Your task to perform on an android device: turn off improve location accuracy Image 0: 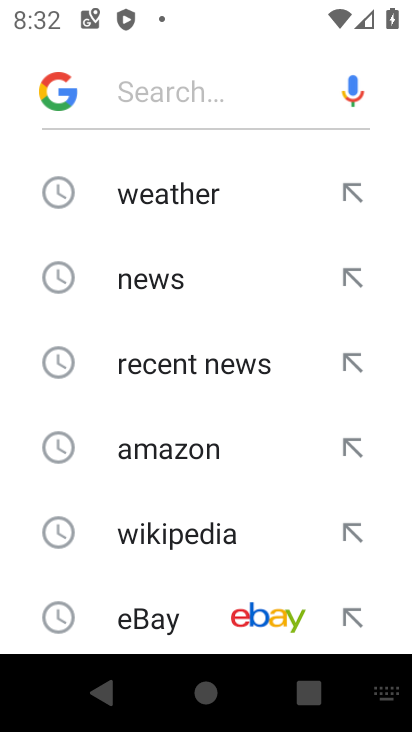
Step 0: press home button
Your task to perform on an android device: turn off improve location accuracy Image 1: 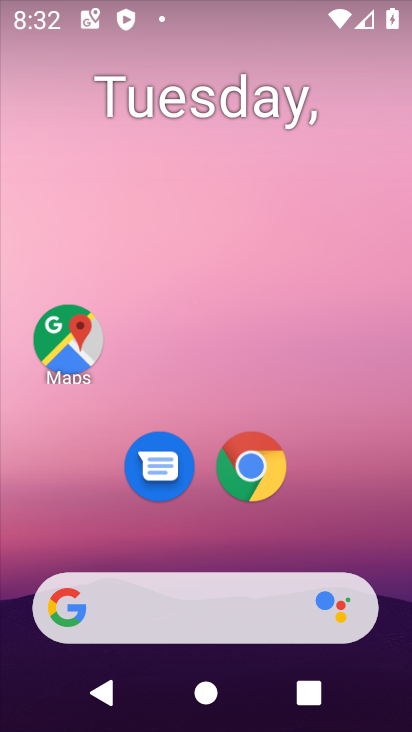
Step 1: drag from (366, 518) to (356, 120)
Your task to perform on an android device: turn off improve location accuracy Image 2: 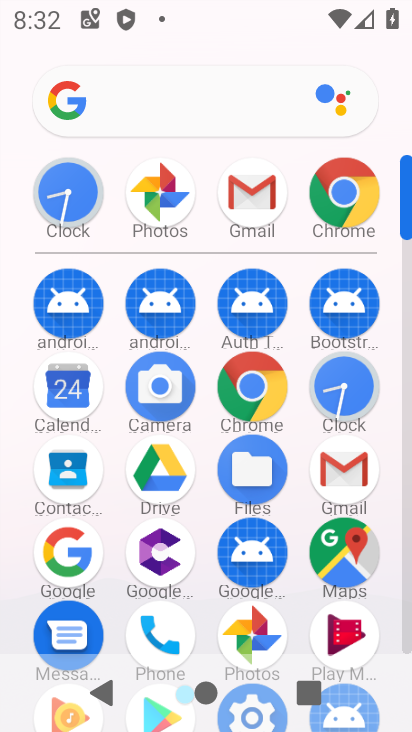
Step 2: click (411, 648)
Your task to perform on an android device: turn off improve location accuracy Image 3: 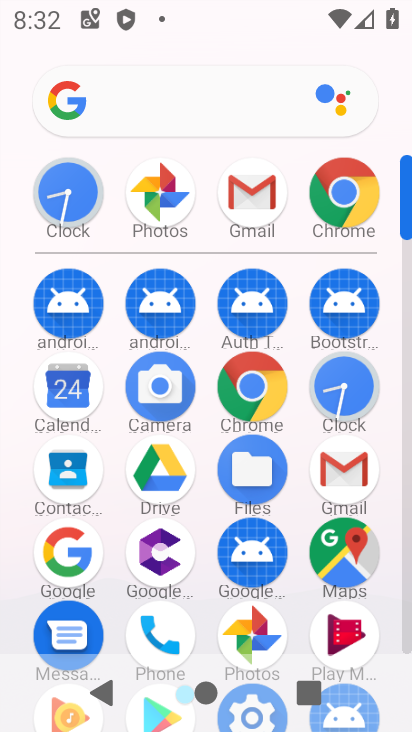
Step 3: click (411, 648)
Your task to perform on an android device: turn off improve location accuracy Image 4: 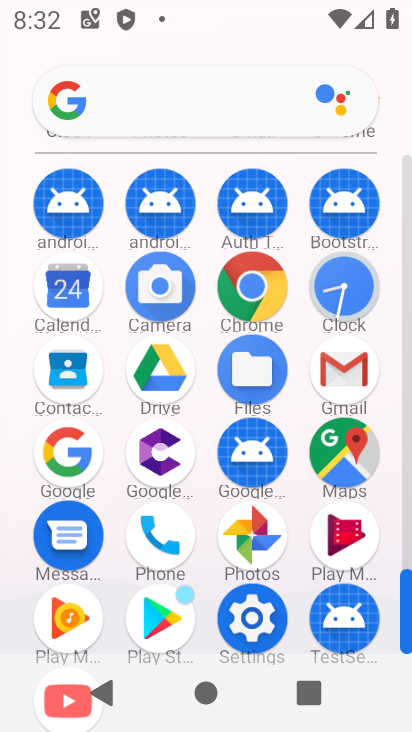
Step 4: click (238, 622)
Your task to perform on an android device: turn off improve location accuracy Image 5: 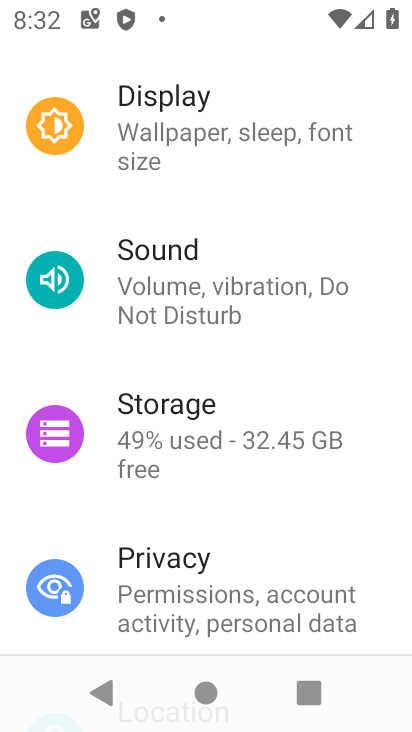
Step 5: drag from (313, 574) to (335, 155)
Your task to perform on an android device: turn off improve location accuracy Image 6: 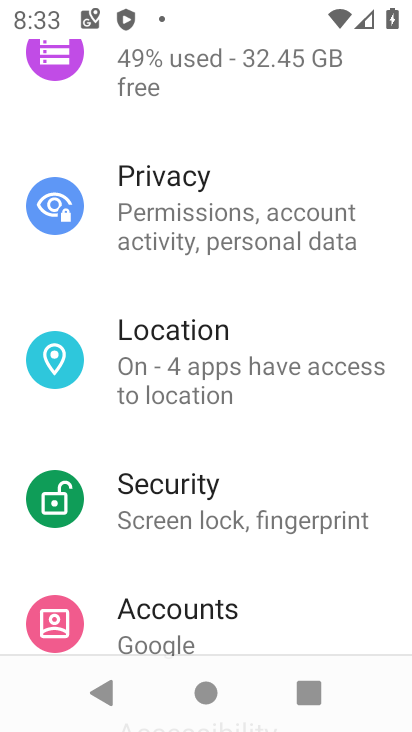
Step 6: click (247, 350)
Your task to perform on an android device: turn off improve location accuracy Image 7: 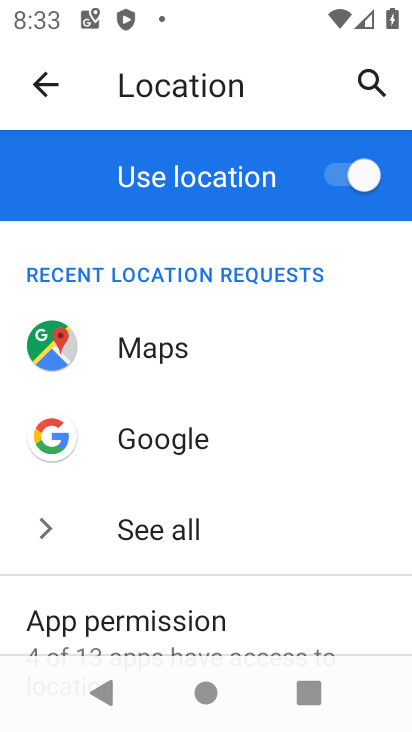
Step 7: drag from (276, 546) to (266, 292)
Your task to perform on an android device: turn off improve location accuracy Image 8: 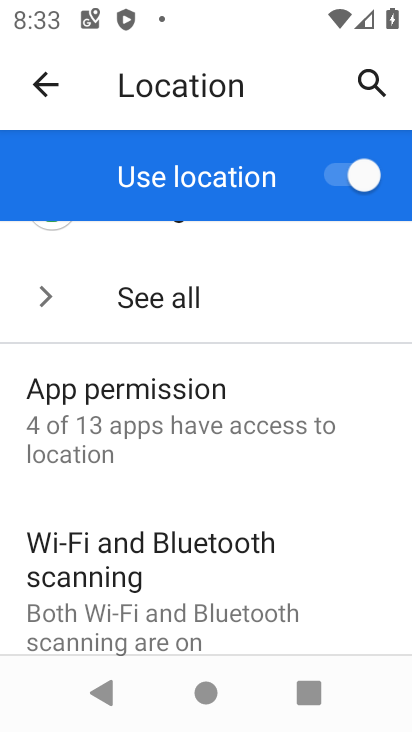
Step 8: drag from (203, 577) to (199, 305)
Your task to perform on an android device: turn off improve location accuracy Image 9: 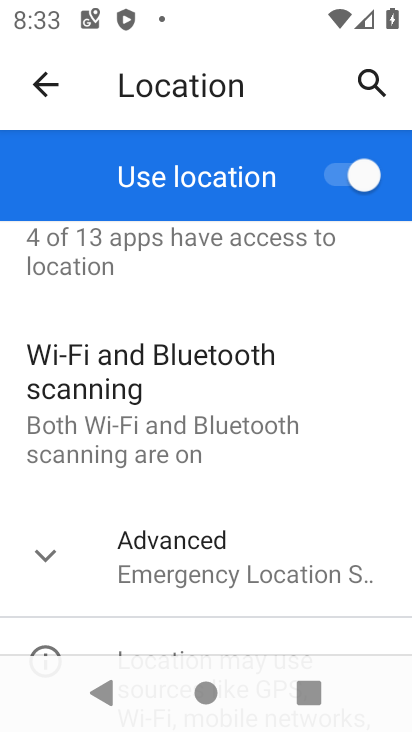
Step 9: click (182, 554)
Your task to perform on an android device: turn off improve location accuracy Image 10: 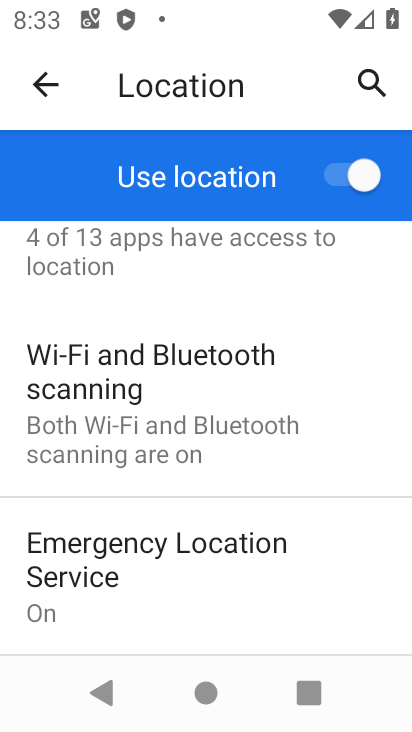
Step 10: drag from (239, 570) to (260, 252)
Your task to perform on an android device: turn off improve location accuracy Image 11: 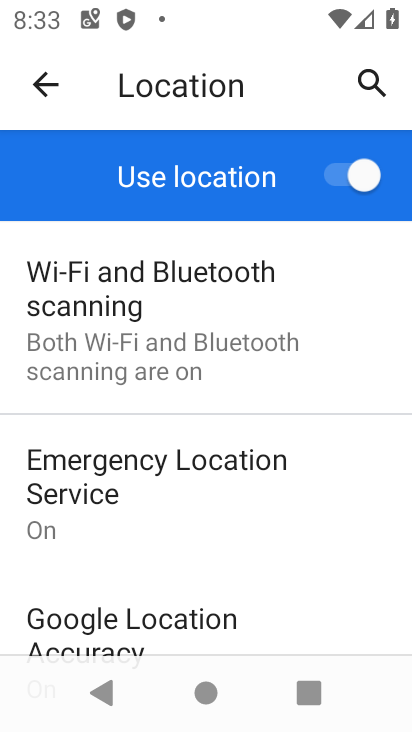
Step 11: click (266, 594)
Your task to perform on an android device: turn off improve location accuracy Image 12: 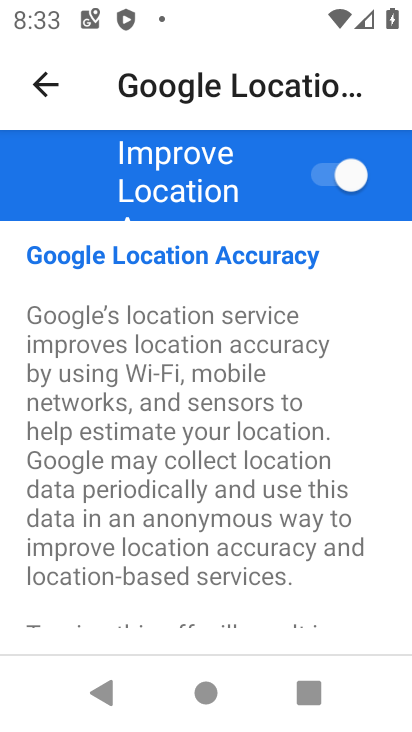
Step 12: click (360, 154)
Your task to perform on an android device: turn off improve location accuracy Image 13: 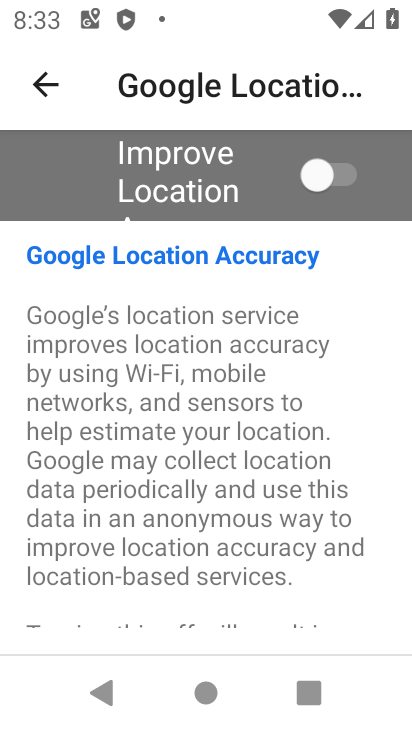
Step 13: task complete